Your task to perform on an android device: Open calendar and show me the second week of next month Image 0: 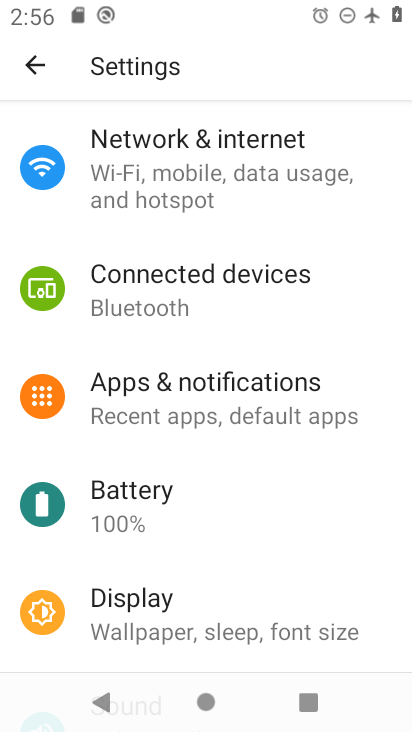
Step 0: press back button
Your task to perform on an android device: Open calendar and show me the second week of next month Image 1: 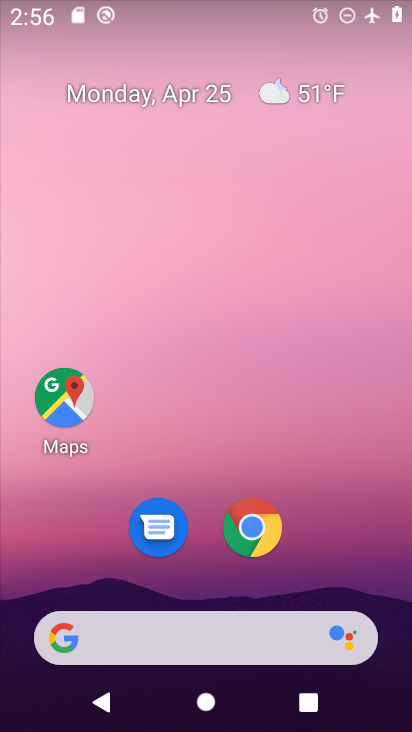
Step 1: drag from (332, 556) to (330, 33)
Your task to perform on an android device: Open calendar and show me the second week of next month Image 2: 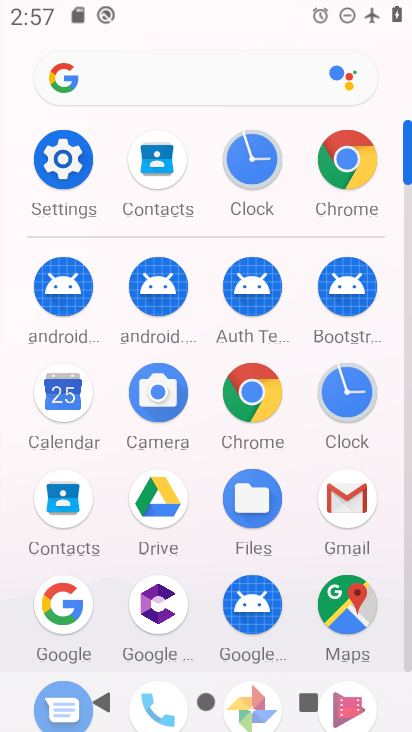
Step 2: drag from (24, 522) to (24, 233)
Your task to perform on an android device: Open calendar and show me the second week of next month Image 3: 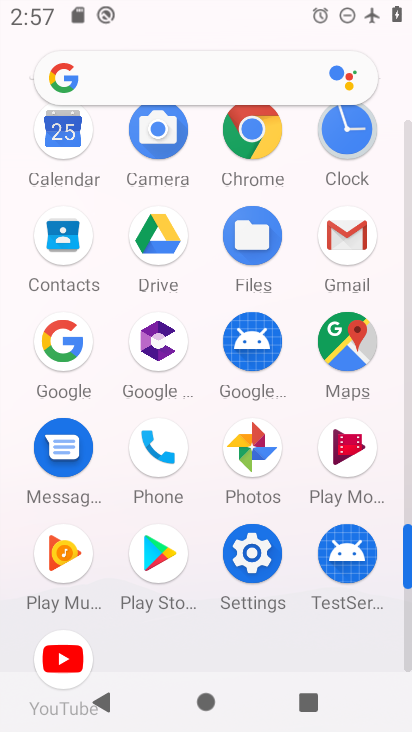
Step 3: click (57, 129)
Your task to perform on an android device: Open calendar and show me the second week of next month Image 4: 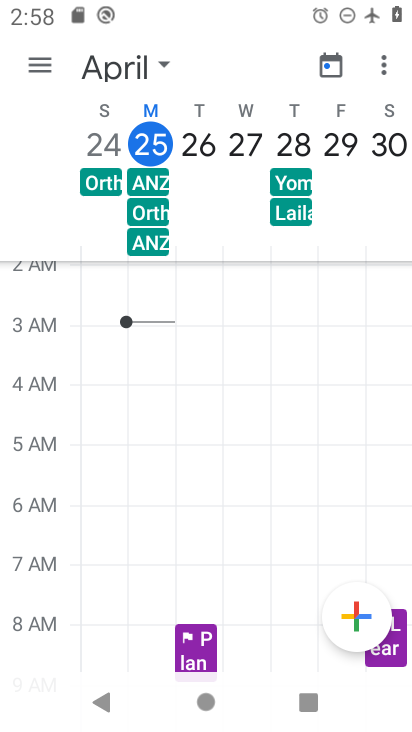
Step 4: click (111, 71)
Your task to perform on an android device: Open calendar and show me the second week of next month Image 5: 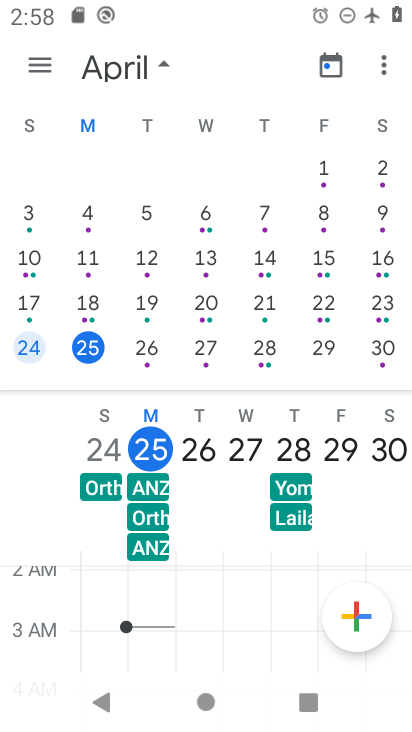
Step 5: click (48, 63)
Your task to perform on an android device: Open calendar and show me the second week of next month Image 6: 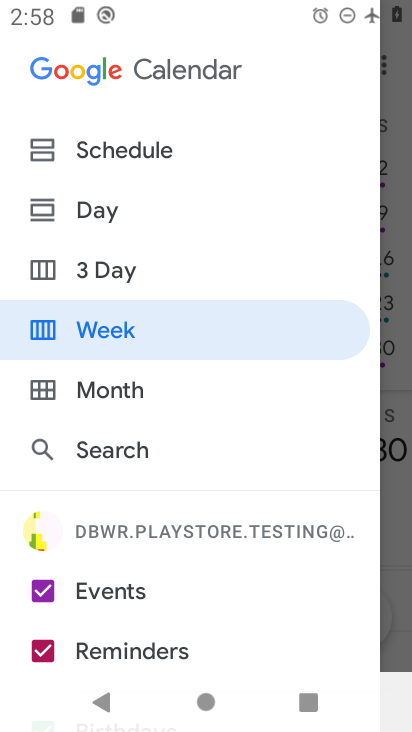
Step 6: click (112, 383)
Your task to perform on an android device: Open calendar and show me the second week of next month Image 7: 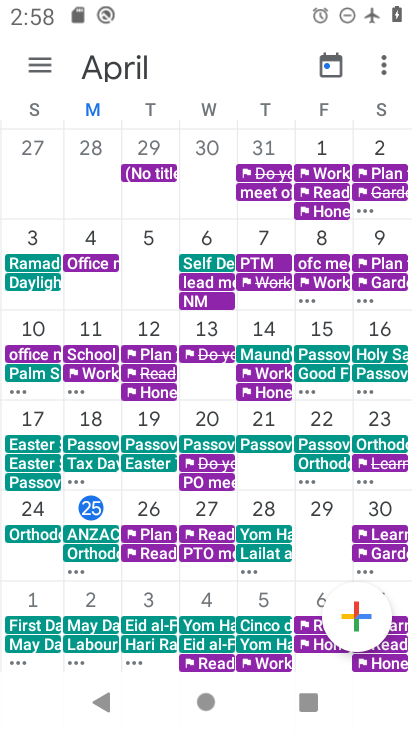
Step 7: drag from (370, 402) to (23, 428)
Your task to perform on an android device: Open calendar and show me the second week of next month Image 8: 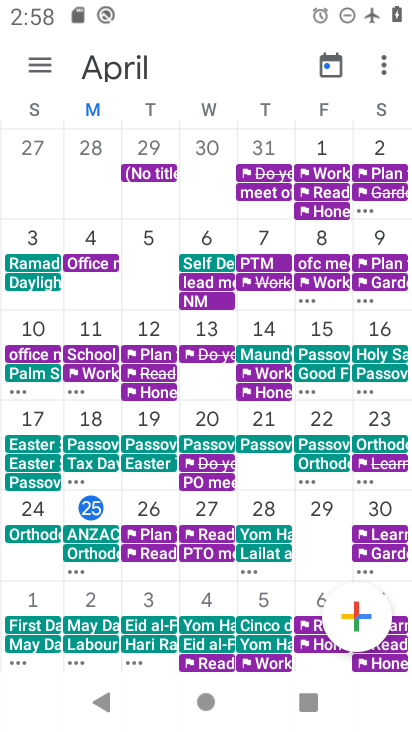
Step 8: click (51, 62)
Your task to perform on an android device: Open calendar and show me the second week of next month Image 9: 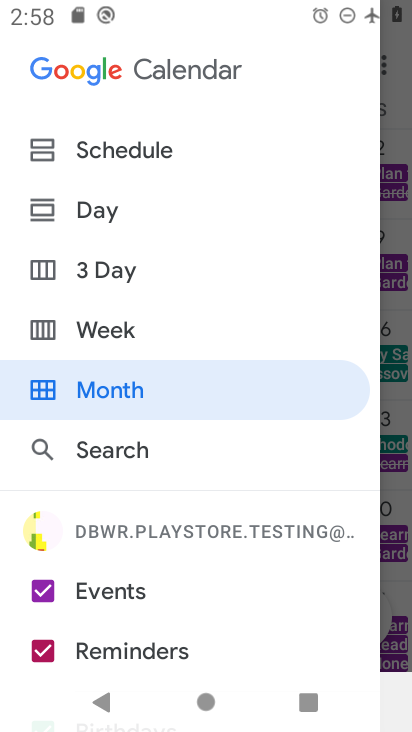
Step 9: click (142, 327)
Your task to perform on an android device: Open calendar and show me the second week of next month Image 10: 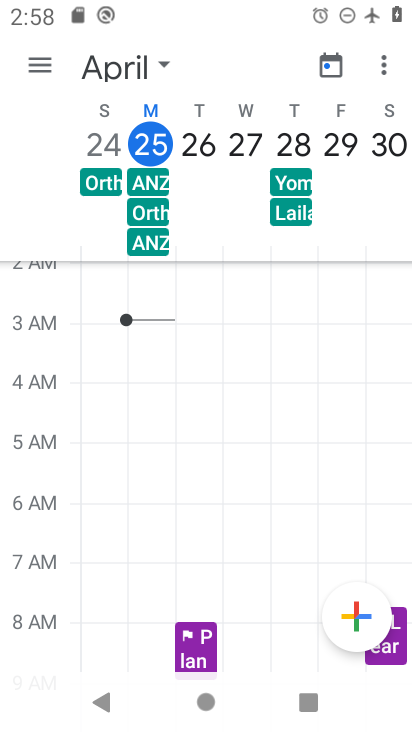
Step 10: drag from (382, 131) to (0, 106)
Your task to perform on an android device: Open calendar and show me the second week of next month Image 11: 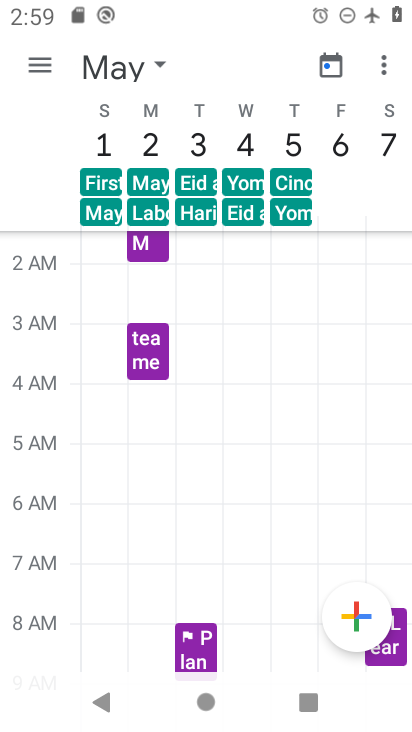
Step 11: click (88, 66)
Your task to perform on an android device: Open calendar and show me the second week of next month Image 12: 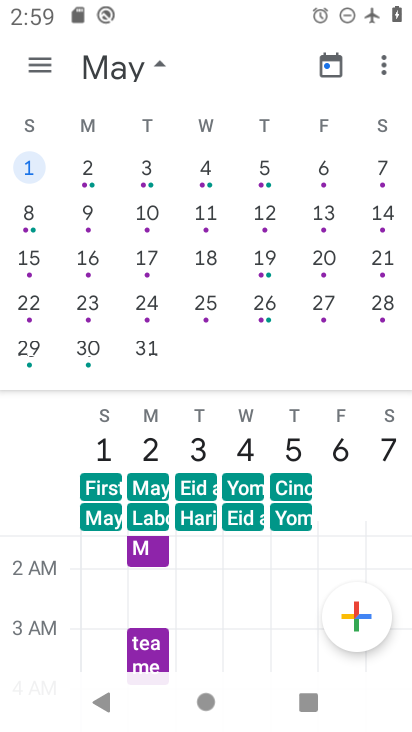
Step 12: click (35, 214)
Your task to perform on an android device: Open calendar and show me the second week of next month Image 13: 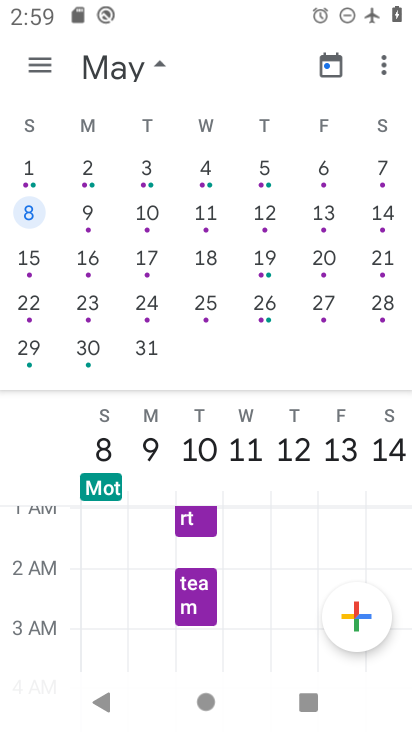
Step 13: click (45, 54)
Your task to perform on an android device: Open calendar and show me the second week of next month Image 14: 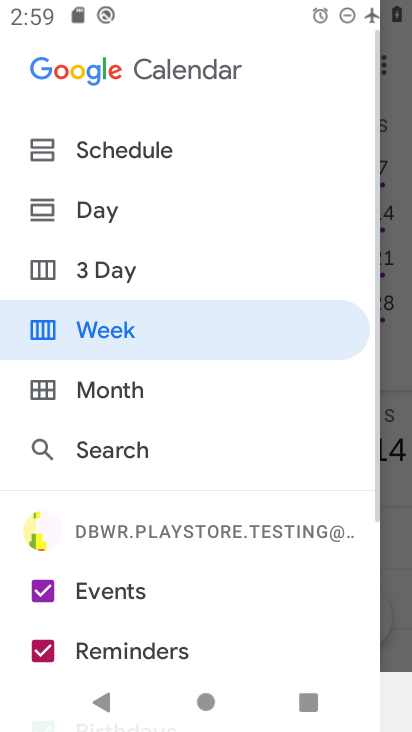
Step 14: click (131, 338)
Your task to perform on an android device: Open calendar and show me the second week of next month Image 15: 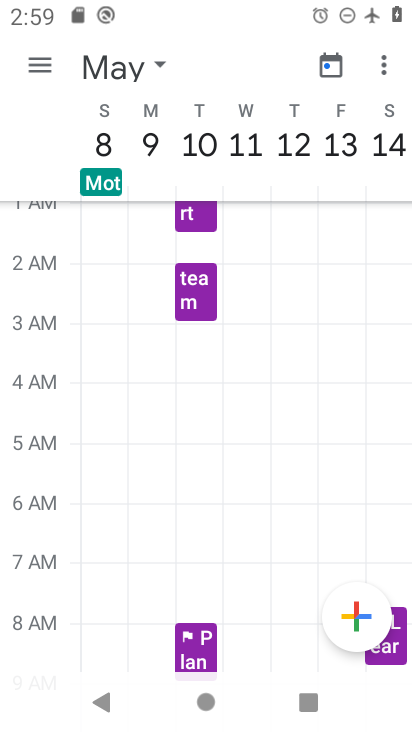
Step 15: task complete